Your task to perform on an android device: turn off wifi Image 0: 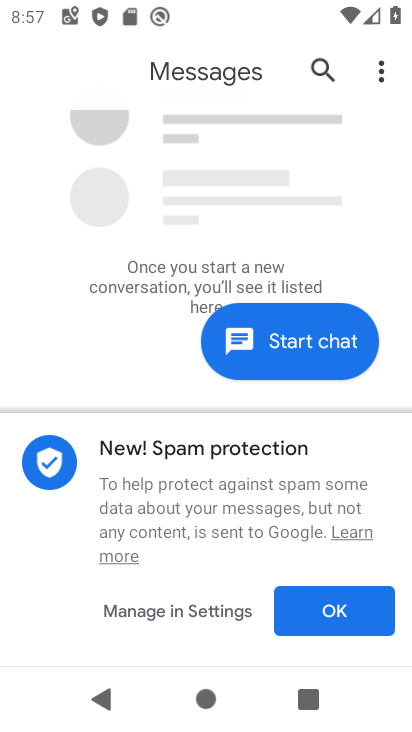
Step 0: press home button
Your task to perform on an android device: turn off wifi Image 1: 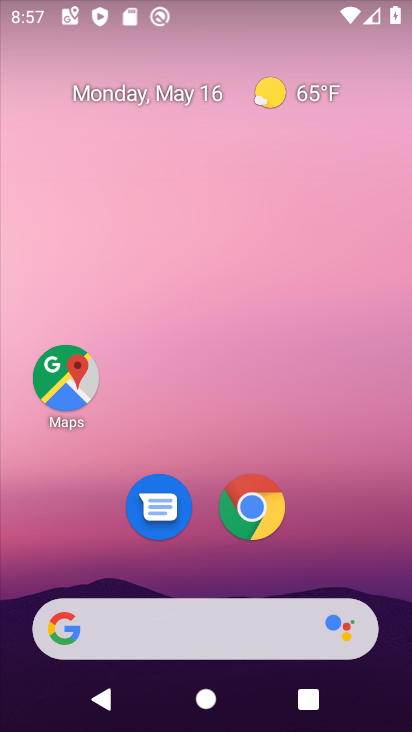
Step 1: drag from (225, 587) to (298, 18)
Your task to perform on an android device: turn off wifi Image 2: 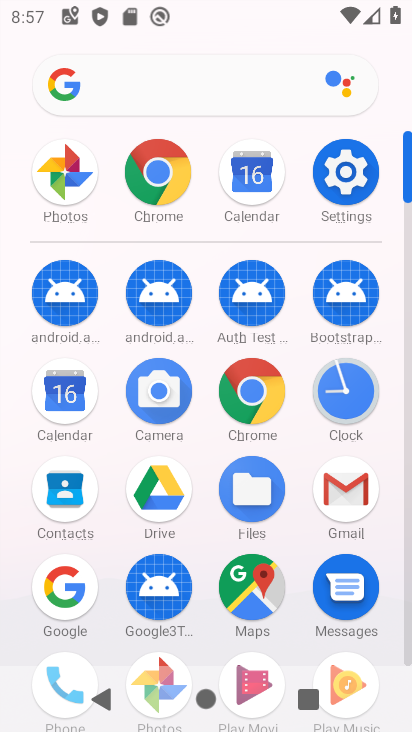
Step 2: click (371, 176)
Your task to perform on an android device: turn off wifi Image 3: 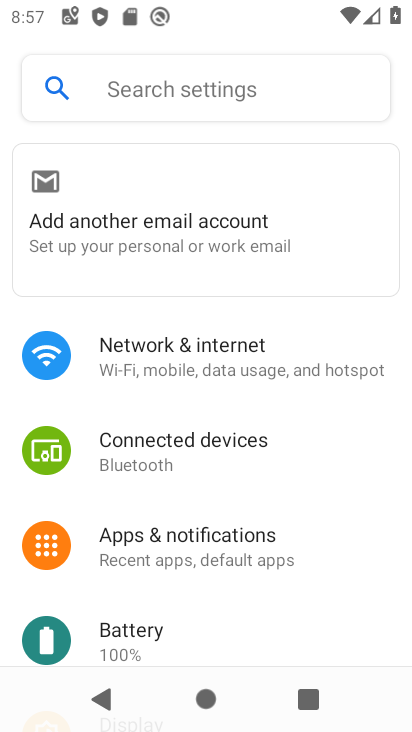
Step 3: drag from (290, 493) to (262, 384)
Your task to perform on an android device: turn off wifi Image 4: 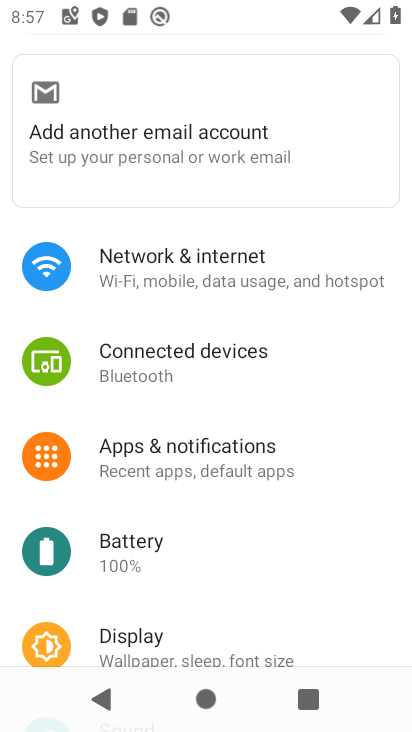
Step 4: click (230, 291)
Your task to perform on an android device: turn off wifi Image 5: 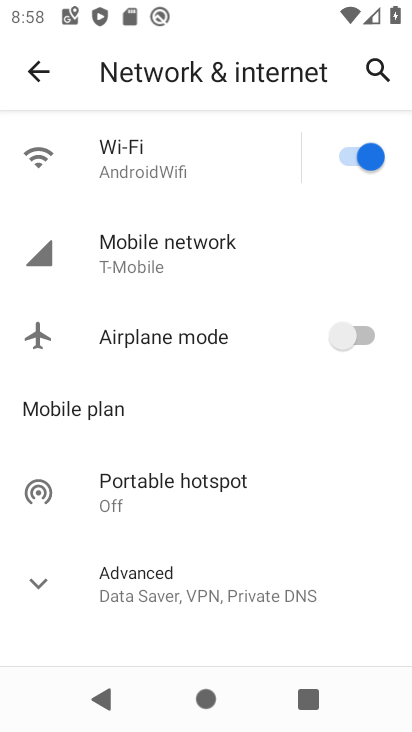
Step 5: click (350, 154)
Your task to perform on an android device: turn off wifi Image 6: 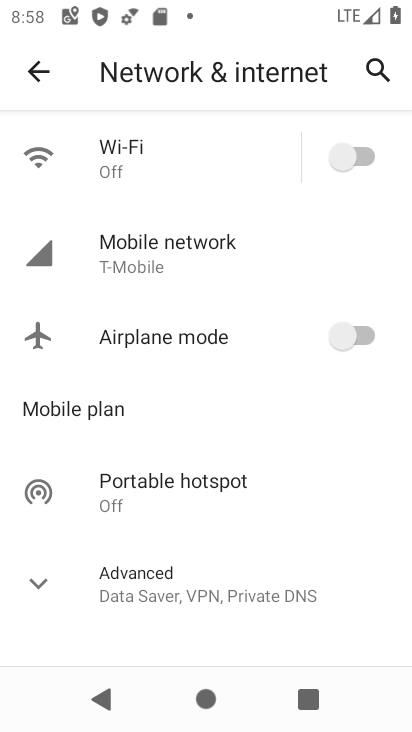
Step 6: task complete